Your task to perform on an android device: Go to internet settings Image 0: 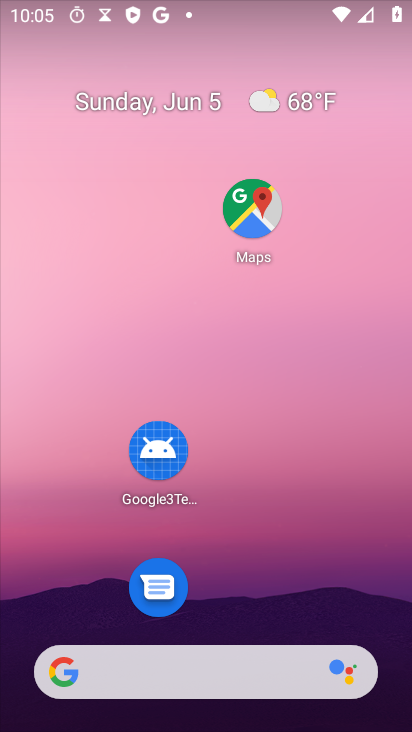
Step 0: drag from (287, 569) to (279, 90)
Your task to perform on an android device: Go to internet settings Image 1: 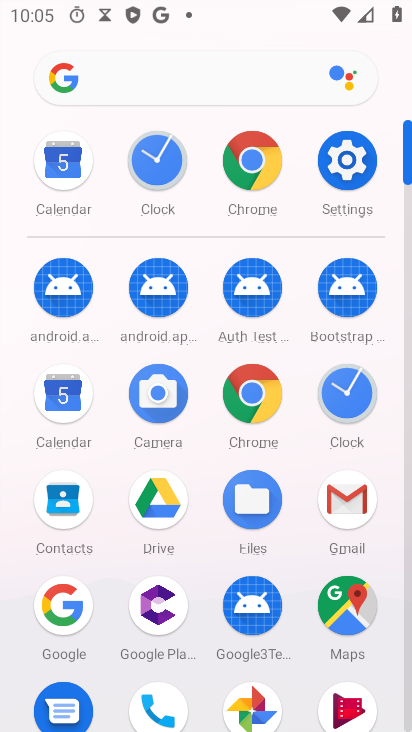
Step 1: click (331, 149)
Your task to perform on an android device: Go to internet settings Image 2: 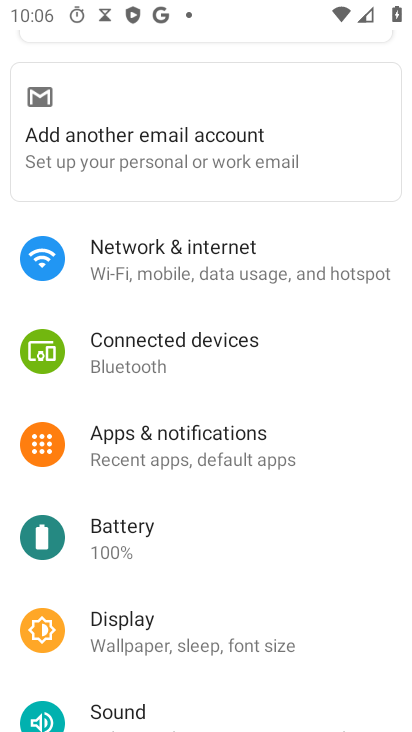
Step 2: click (161, 275)
Your task to perform on an android device: Go to internet settings Image 3: 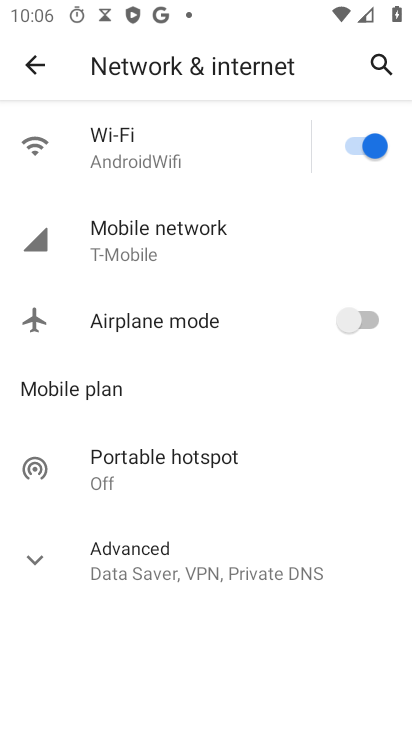
Step 3: click (161, 315)
Your task to perform on an android device: Go to internet settings Image 4: 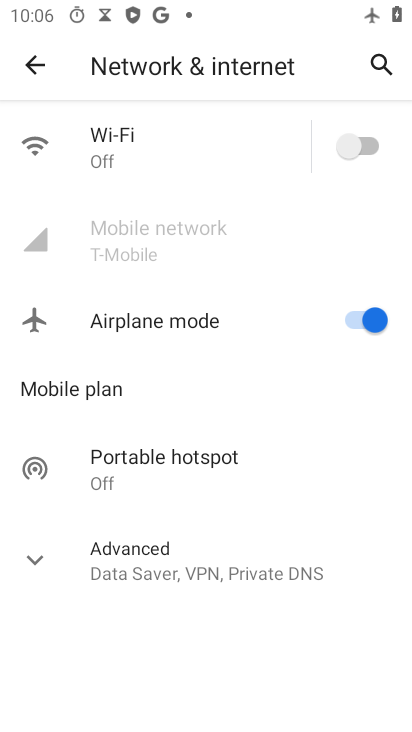
Step 4: click (193, 232)
Your task to perform on an android device: Go to internet settings Image 5: 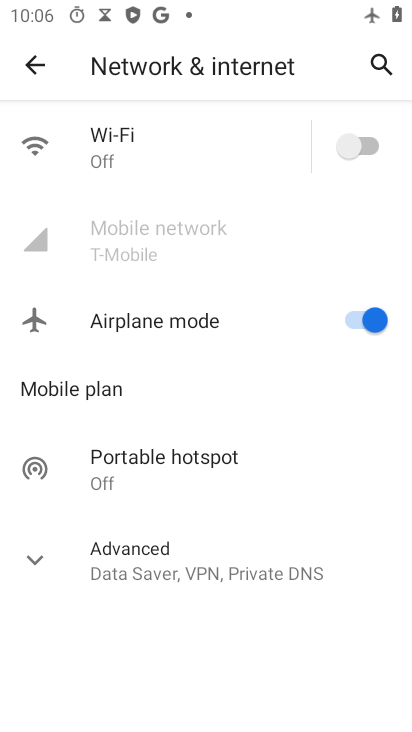
Step 5: click (193, 232)
Your task to perform on an android device: Go to internet settings Image 6: 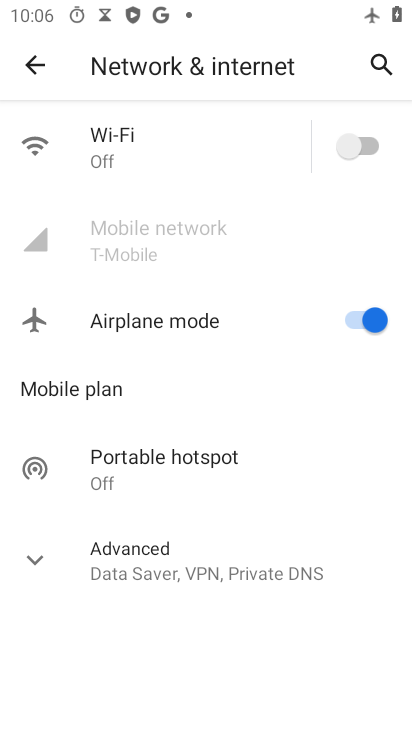
Step 6: click (193, 232)
Your task to perform on an android device: Go to internet settings Image 7: 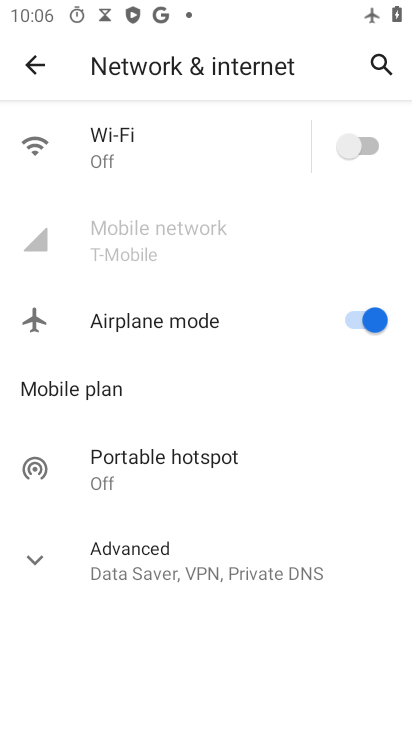
Step 7: click (380, 324)
Your task to perform on an android device: Go to internet settings Image 8: 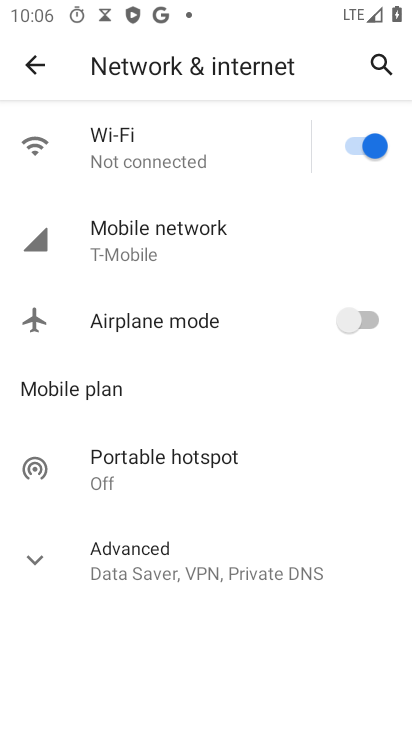
Step 8: click (204, 218)
Your task to perform on an android device: Go to internet settings Image 9: 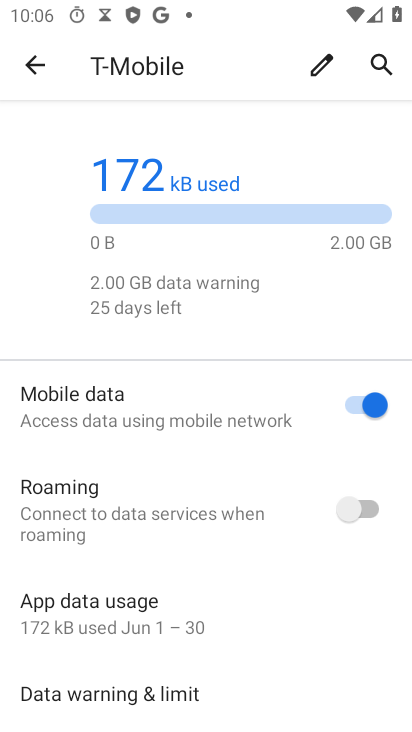
Step 9: task complete